Your task to perform on an android device: Go to CNN.com Image 0: 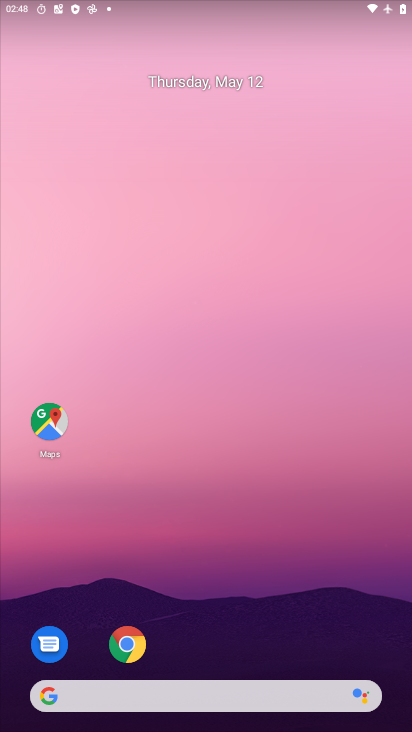
Step 0: click (135, 632)
Your task to perform on an android device: Go to CNN.com Image 1: 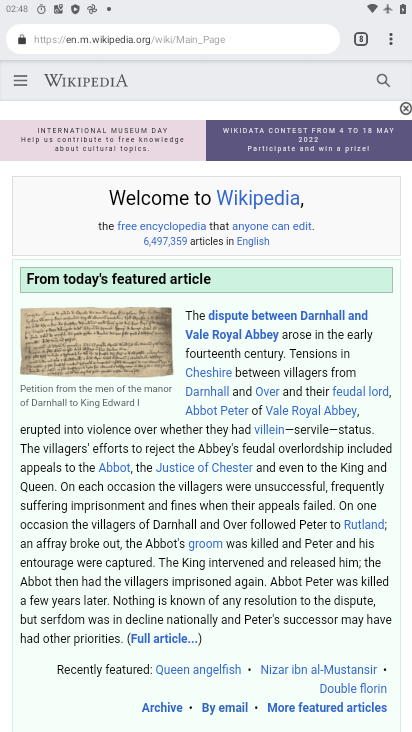
Step 1: click (355, 30)
Your task to perform on an android device: Go to CNN.com Image 2: 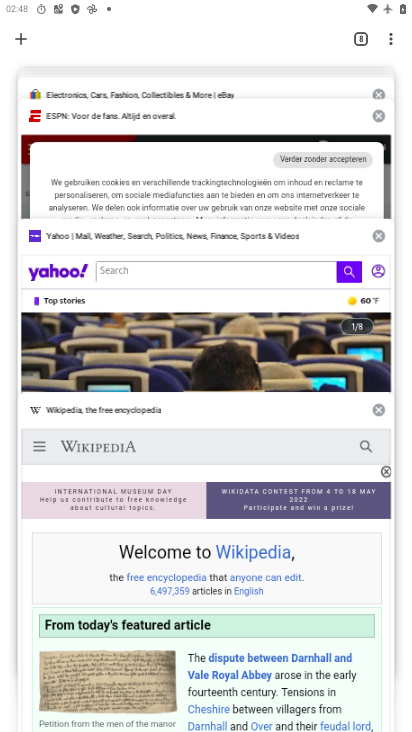
Step 2: click (22, 35)
Your task to perform on an android device: Go to CNN.com Image 3: 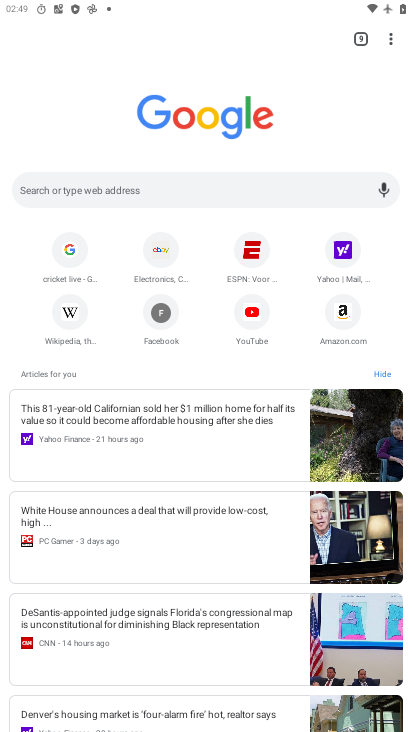
Step 3: click (180, 191)
Your task to perform on an android device: Go to CNN.com Image 4: 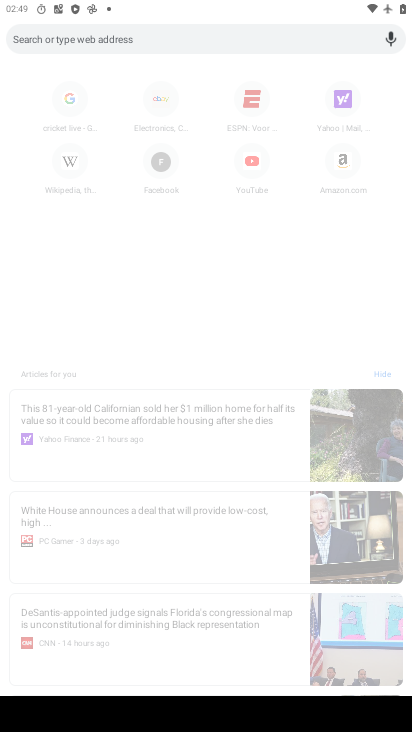
Step 4: type "CNN.com"
Your task to perform on an android device: Go to CNN.com Image 5: 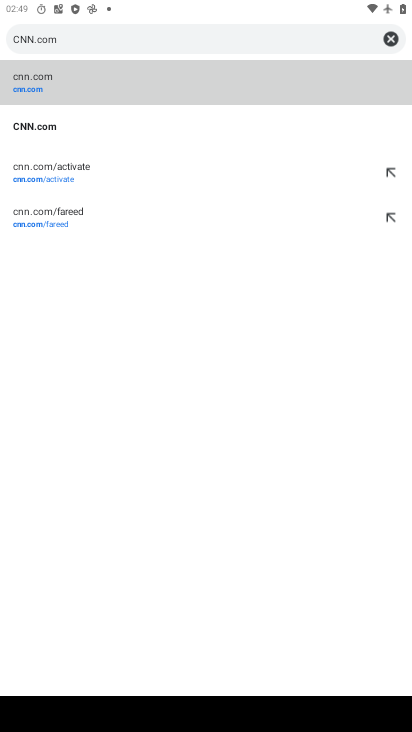
Step 5: click (81, 69)
Your task to perform on an android device: Go to CNN.com Image 6: 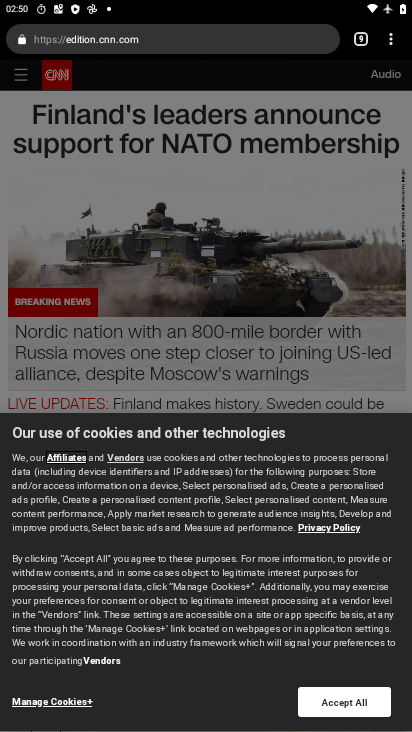
Step 6: task complete